Your task to perform on an android device: Go to privacy settings Image 0: 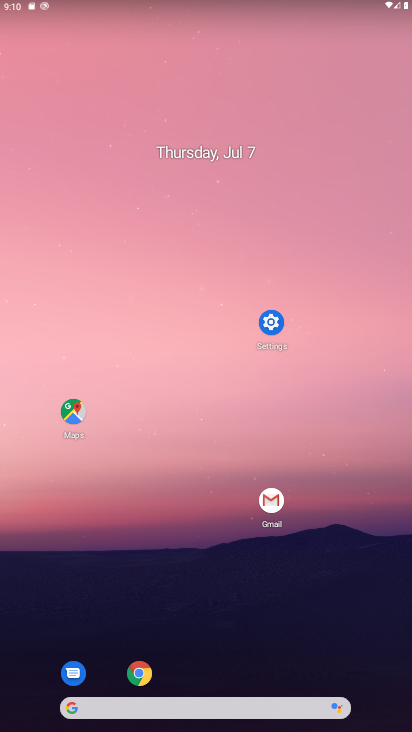
Step 0: click (132, 673)
Your task to perform on an android device: Go to privacy settings Image 1: 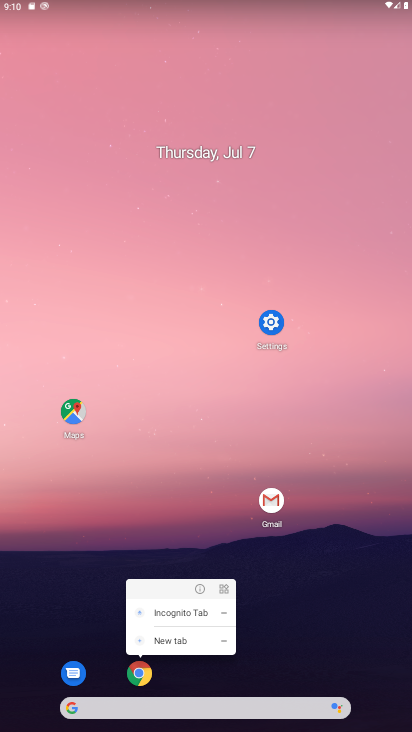
Step 1: click (275, 321)
Your task to perform on an android device: Go to privacy settings Image 2: 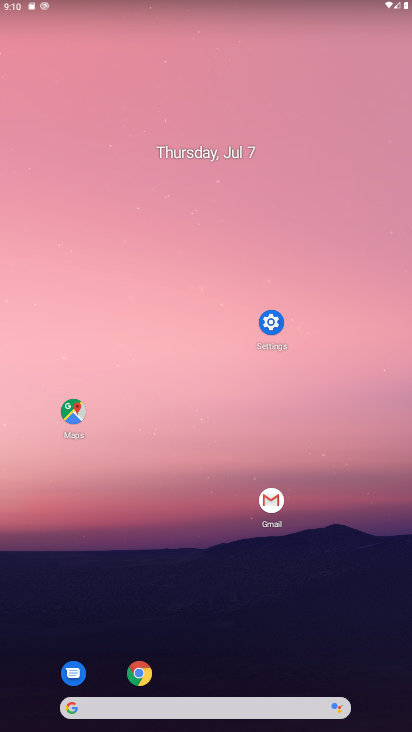
Step 2: click (268, 311)
Your task to perform on an android device: Go to privacy settings Image 3: 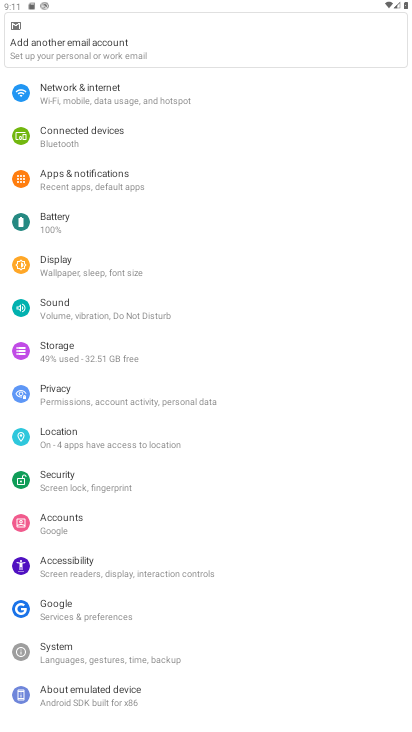
Step 3: click (53, 394)
Your task to perform on an android device: Go to privacy settings Image 4: 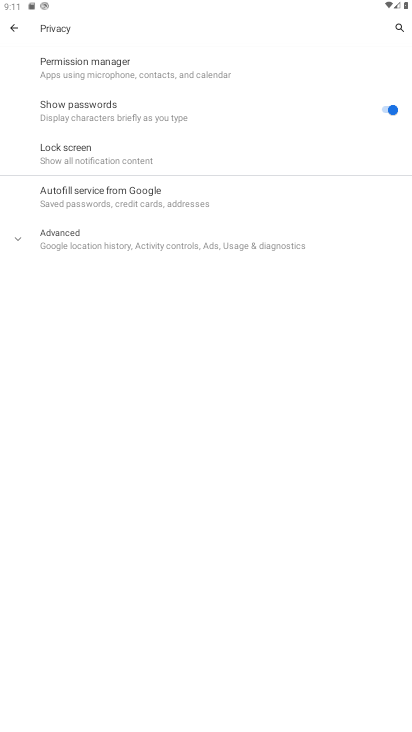
Step 4: task complete